Your task to perform on an android device: turn pop-ups on in chrome Image 0: 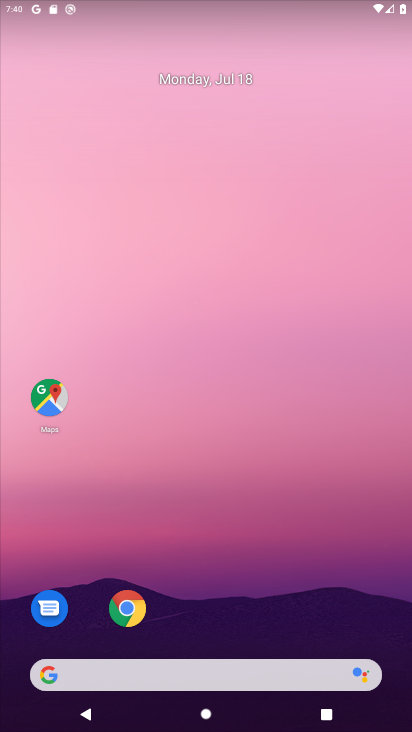
Step 0: click (96, 614)
Your task to perform on an android device: turn pop-ups on in chrome Image 1: 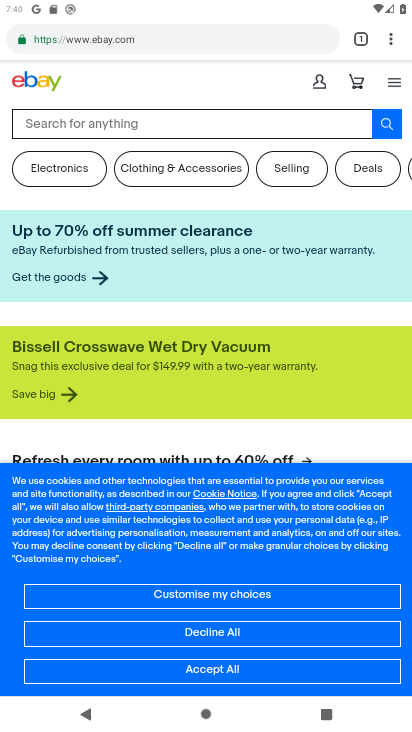
Step 1: click (385, 40)
Your task to perform on an android device: turn pop-ups on in chrome Image 2: 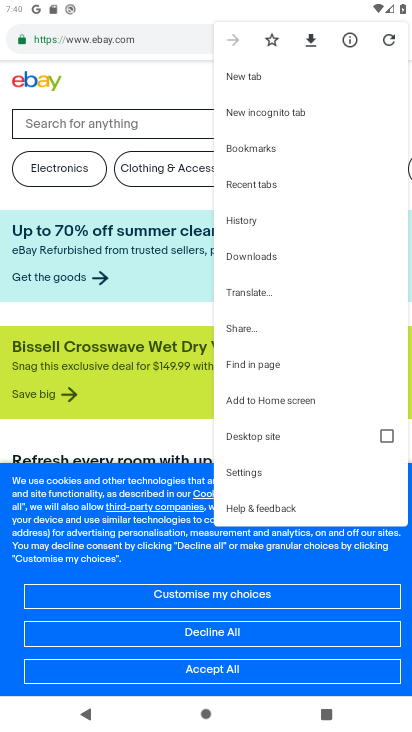
Step 2: click (260, 472)
Your task to perform on an android device: turn pop-ups on in chrome Image 3: 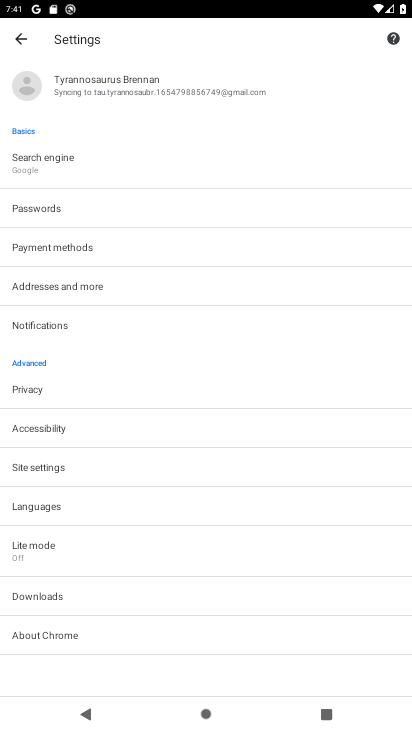
Step 3: click (41, 467)
Your task to perform on an android device: turn pop-ups on in chrome Image 4: 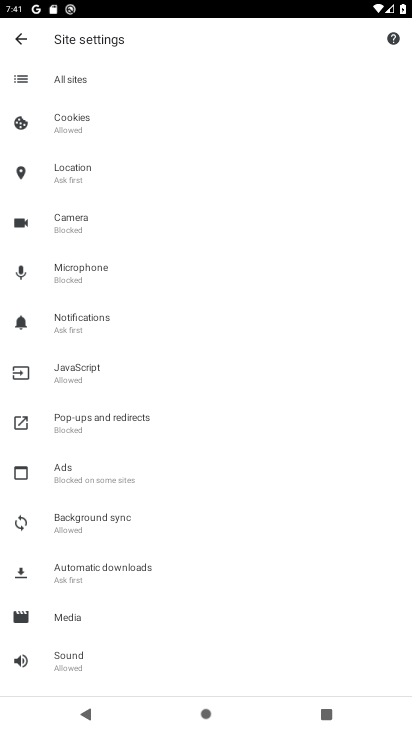
Step 4: drag from (84, 645) to (85, 290)
Your task to perform on an android device: turn pop-ups on in chrome Image 5: 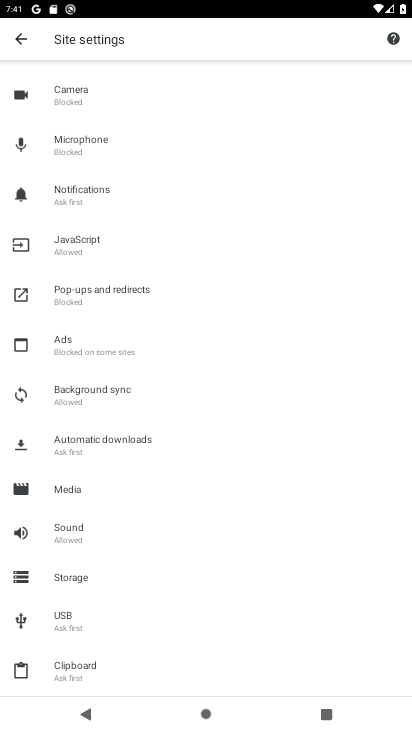
Step 5: click (87, 300)
Your task to perform on an android device: turn pop-ups on in chrome Image 6: 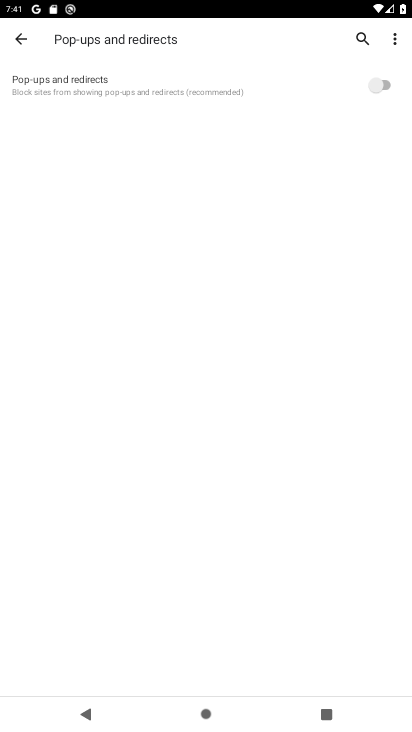
Step 6: click (372, 80)
Your task to perform on an android device: turn pop-ups on in chrome Image 7: 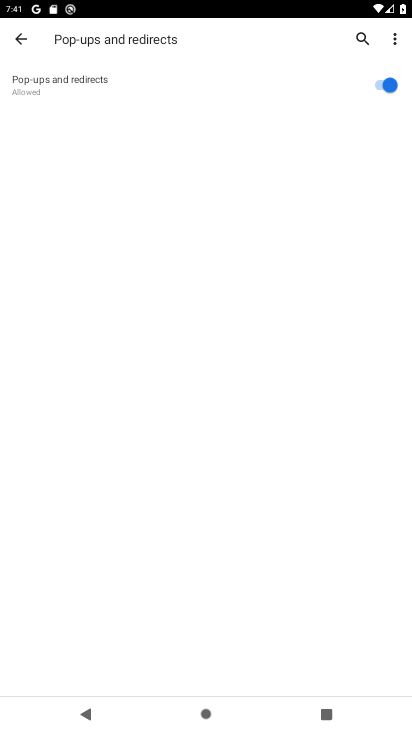
Step 7: task complete